Your task to perform on an android device: Go to Google Image 0: 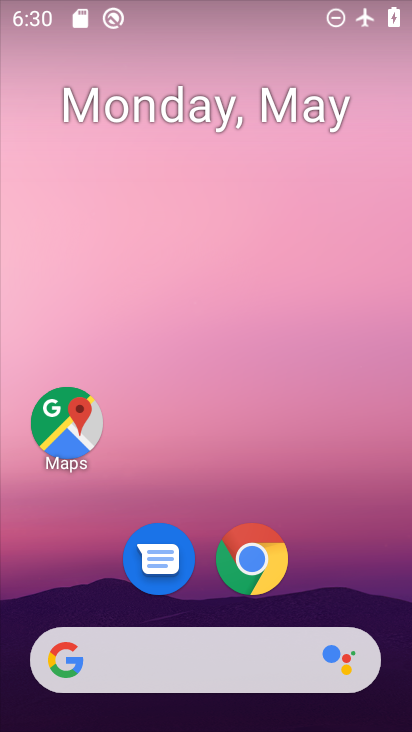
Step 0: click (70, 656)
Your task to perform on an android device: Go to Google Image 1: 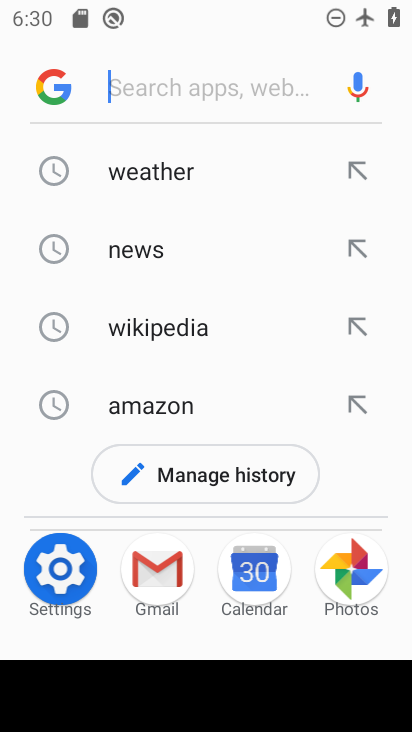
Step 1: click (59, 96)
Your task to perform on an android device: Go to Google Image 2: 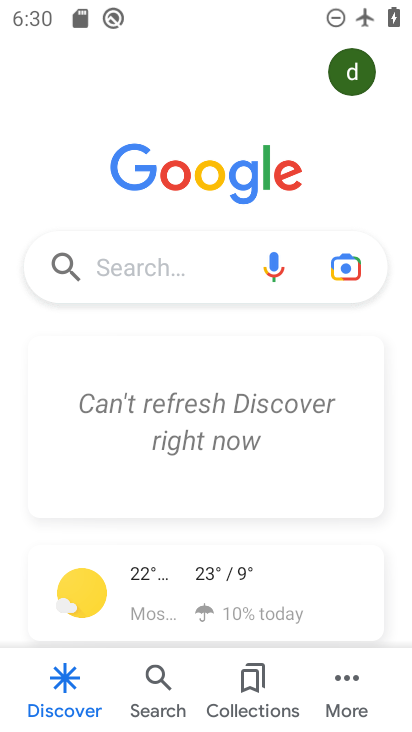
Step 2: task complete